Your task to perform on an android device: change your default location settings in chrome Image 0: 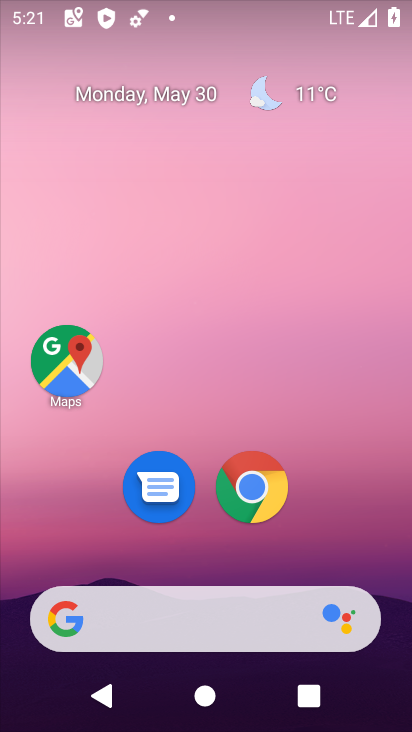
Step 0: click (258, 491)
Your task to perform on an android device: change your default location settings in chrome Image 1: 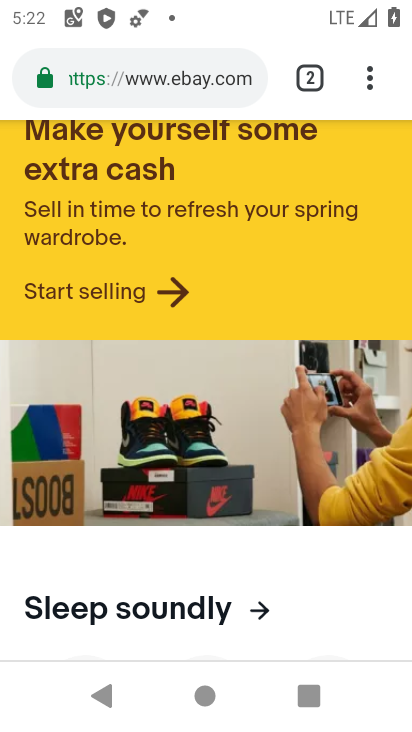
Step 1: click (370, 85)
Your task to perform on an android device: change your default location settings in chrome Image 2: 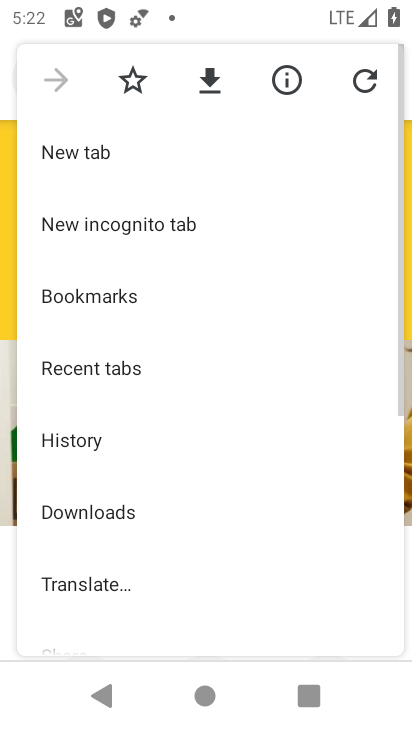
Step 2: drag from (197, 466) to (216, 146)
Your task to perform on an android device: change your default location settings in chrome Image 3: 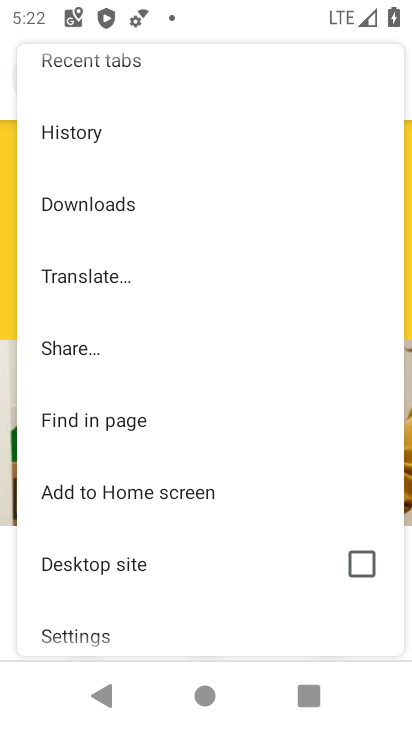
Step 3: drag from (126, 626) to (194, 306)
Your task to perform on an android device: change your default location settings in chrome Image 4: 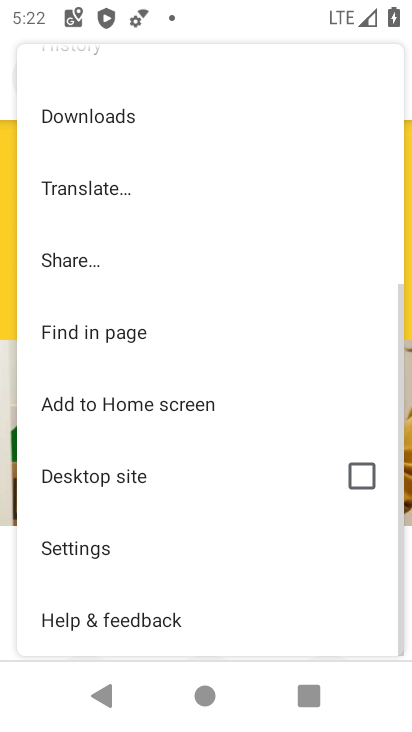
Step 4: click (97, 546)
Your task to perform on an android device: change your default location settings in chrome Image 5: 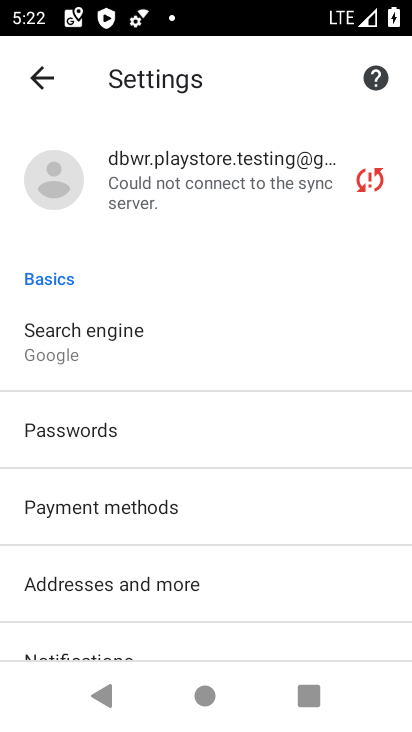
Step 5: drag from (216, 552) to (206, 353)
Your task to perform on an android device: change your default location settings in chrome Image 6: 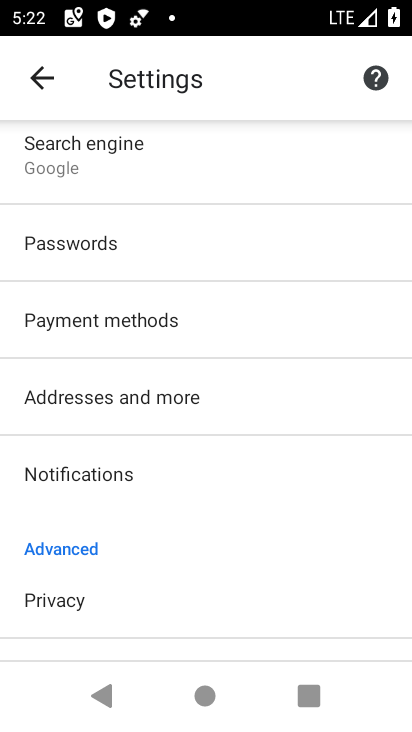
Step 6: drag from (174, 618) to (170, 315)
Your task to perform on an android device: change your default location settings in chrome Image 7: 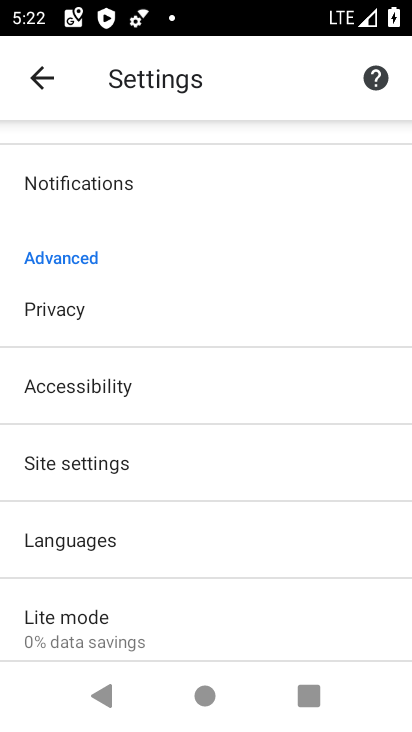
Step 7: click (57, 458)
Your task to perform on an android device: change your default location settings in chrome Image 8: 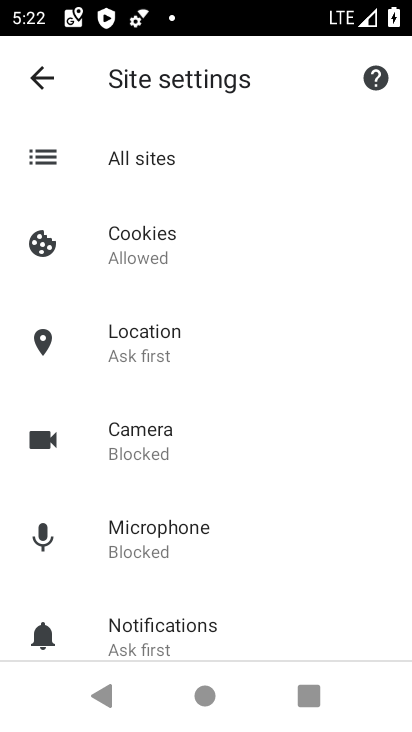
Step 8: click (145, 340)
Your task to perform on an android device: change your default location settings in chrome Image 9: 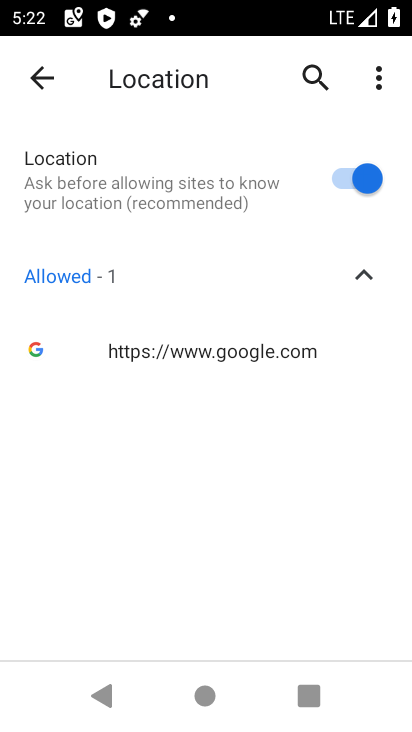
Step 9: click (332, 173)
Your task to perform on an android device: change your default location settings in chrome Image 10: 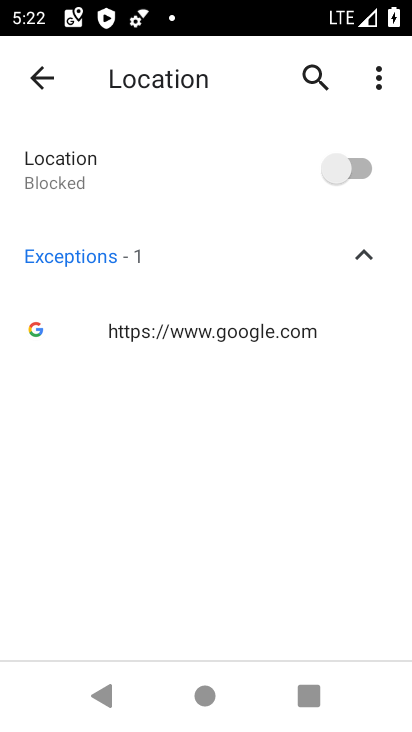
Step 10: task complete